Your task to perform on an android device: change notifications settings Image 0: 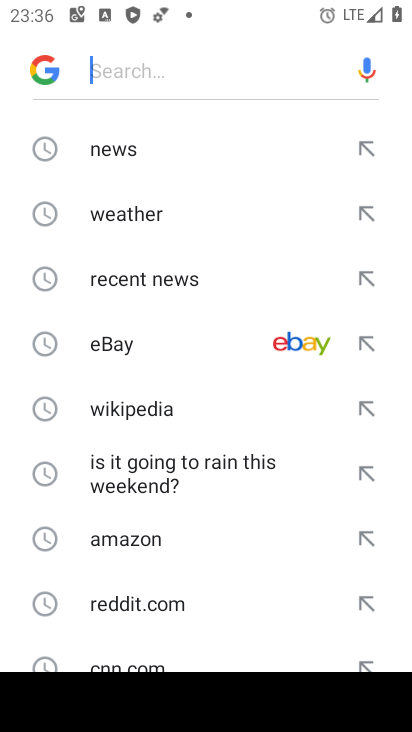
Step 0: press home button
Your task to perform on an android device: change notifications settings Image 1: 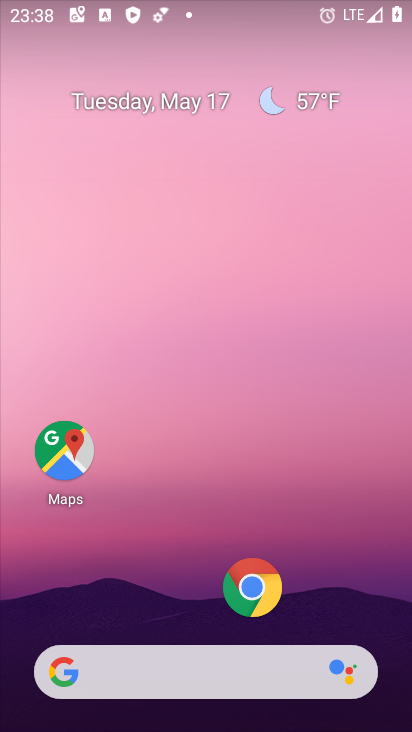
Step 1: drag from (28, 325) to (185, 339)
Your task to perform on an android device: change notifications settings Image 2: 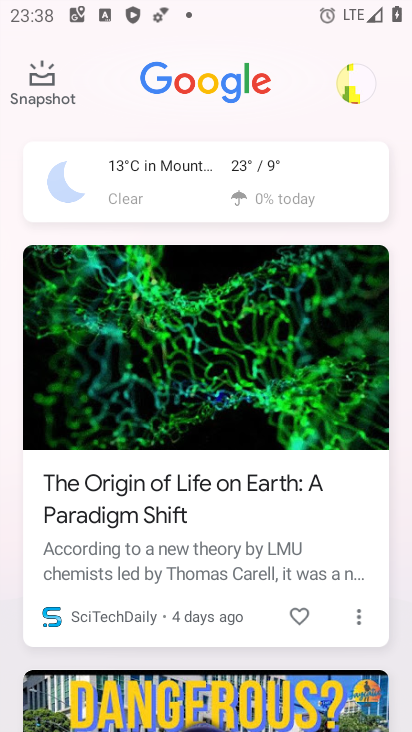
Step 2: press home button
Your task to perform on an android device: change notifications settings Image 3: 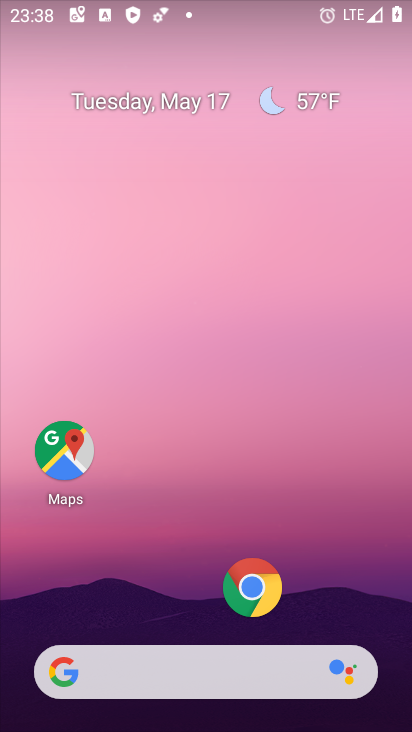
Step 3: drag from (32, 492) to (246, 128)
Your task to perform on an android device: change notifications settings Image 4: 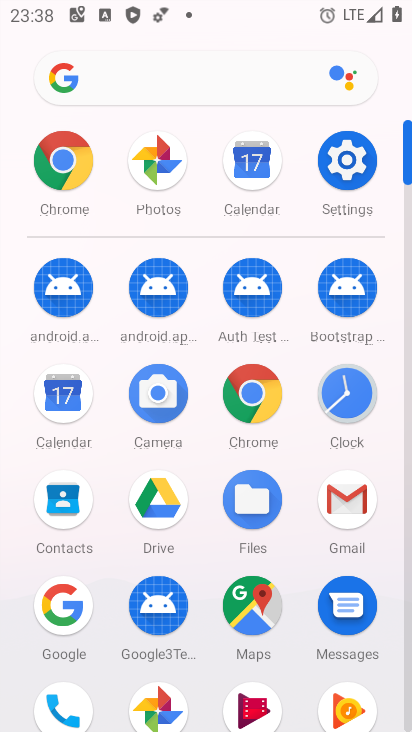
Step 4: click (353, 155)
Your task to perform on an android device: change notifications settings Image 5: 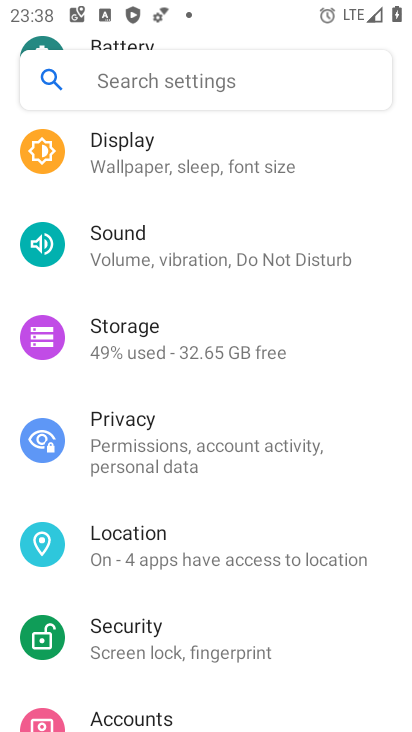
Step 5: drag from (185, 186) to (151, 695)
Your task to perform on an android device: change notifications settings Image 6: 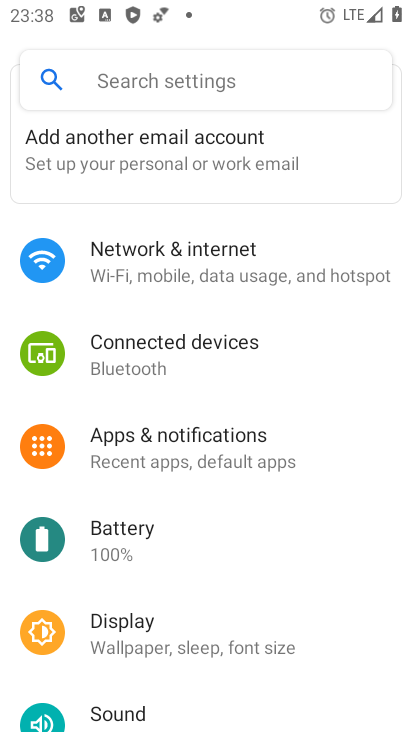
Step 6: click (264, 438)
Your task to perform on an android device: change notifications settings Image 7: 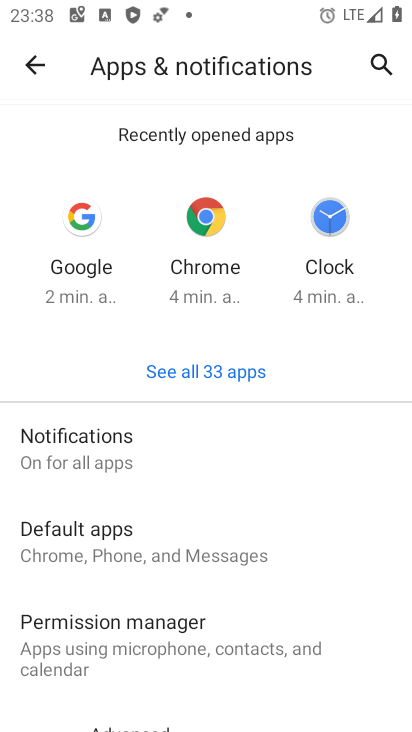
Step 7: click (116, 470)
Your task to perform on an android device: change notifications settings Image 8: 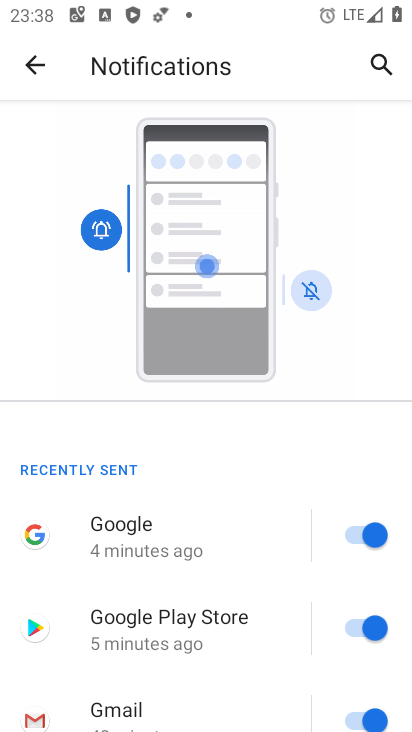
Step 8: task complete